Your task to perform on an android device: read, delete, or share a saved page in the chrome app Image 0: 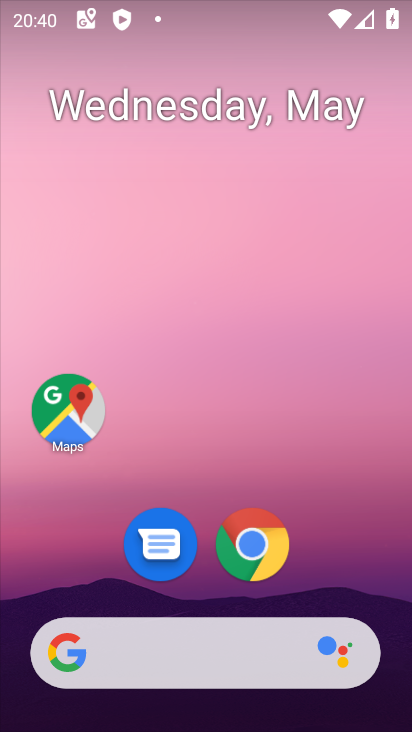
Step 0: click (253, 564)
Your task to perform on an android device: read, delete, or share a saved page in the chrome app Image 1: 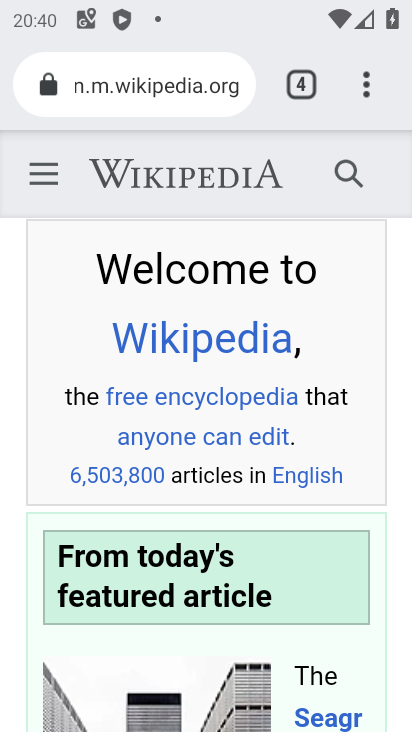
Step 1: click (377, 82)
Your task to perform on an android device: read, delete, or share a saved page in the chrome app Image 2: 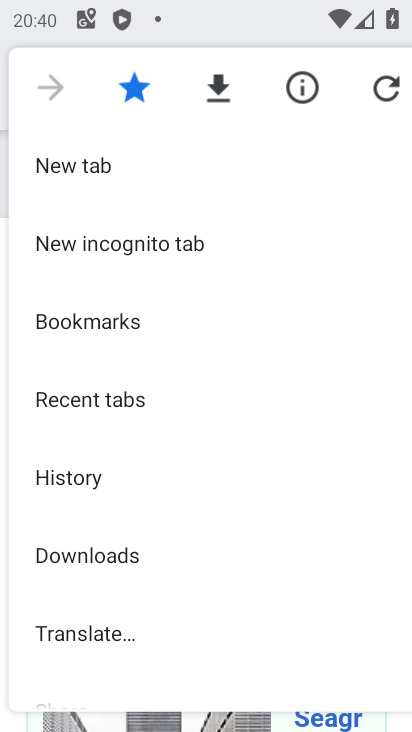
Step 2: click (93, 564)
Your task to perform on an android device: read, delete, or share a saved page in the chrome app Image 3: 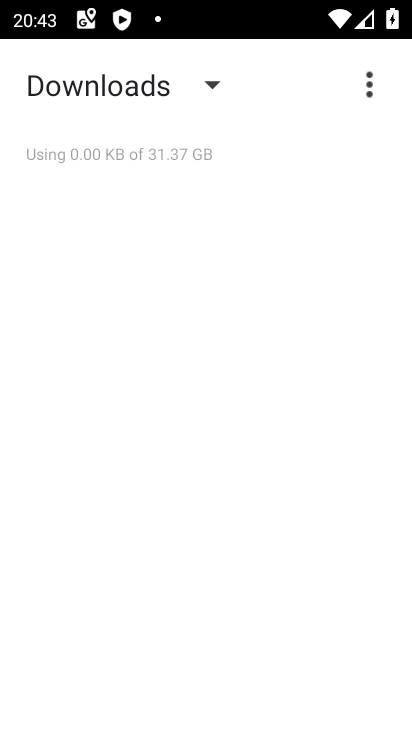
Step 3: task complete